Your task to perform on an android device: Clear the shopping cart on bestbuy.com. Image 0: 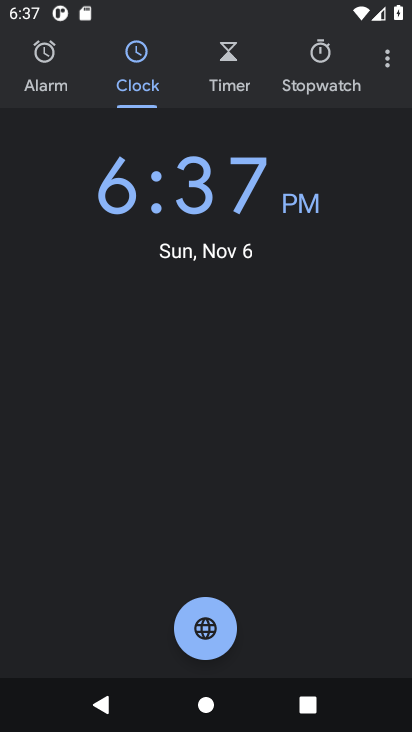
Step 0: press home button
Your task to perform on an android device: Clear the shopping cart on bestbuy.com. Image 1: 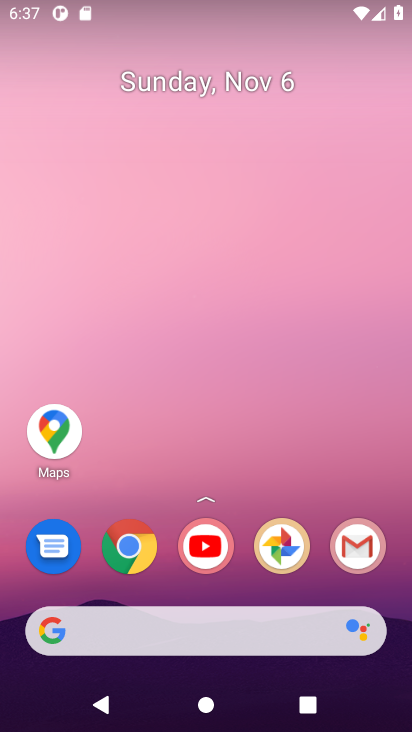
Step 1: click (121, 546)
Your task to perform on an android device: Clear the shopping cart on bestbuy.com. Image 2: 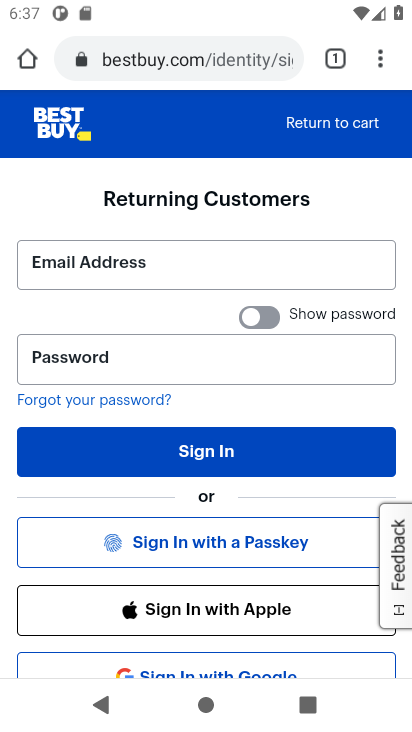
Step 2: click (332, 125)
Your task to perform on an android device: Clear the shopping cart on bestbuy.com. Image 3: 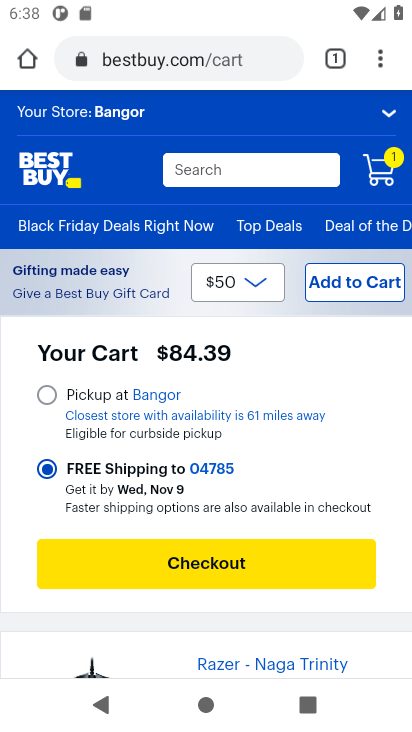
Step 3: drag from (224, 482) to (226, 220)
Your task to perform on an android device: Clear the shopping cart on bestbuy.com. Image 4: 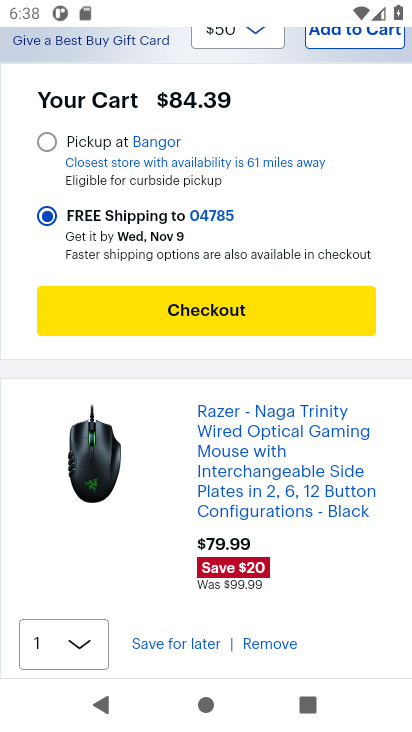
Step 4: drag from (154, 538) to (169, 321)
Your task to perform on an android device: Clear the shopping cart on bestbuy.com. Image 5: 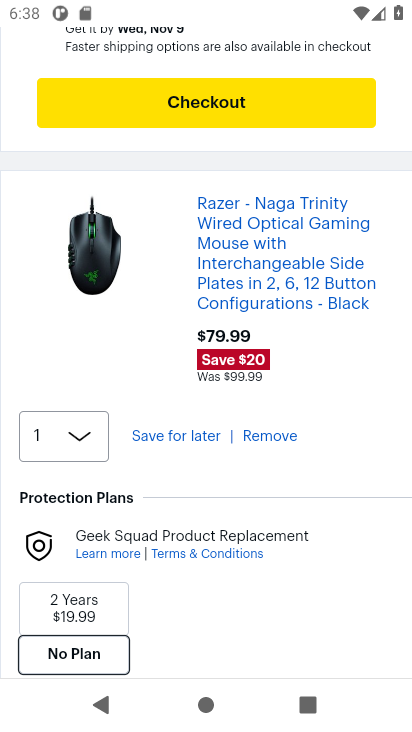
Step 5: click (266, 438)
Your task to perform on an android device: Clear the shopping cart on bestbuy.com. Image 6: 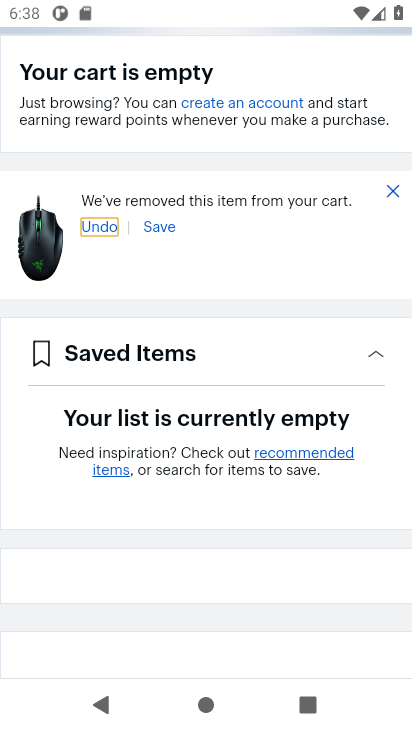
Step 6: task complete